Your task to perform on an android device: move an email to a new category in the gmail app Image 0: 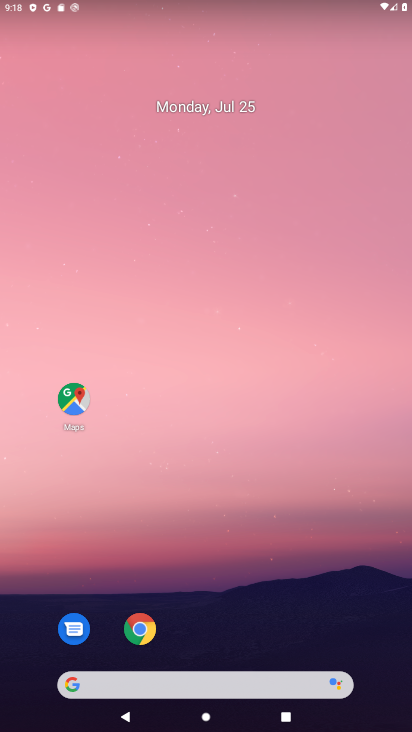
Step 0: drag from (222, 625) to (255, 0)
Your task to perform on an android device: move an email to a new category in the gmail app Image 1: 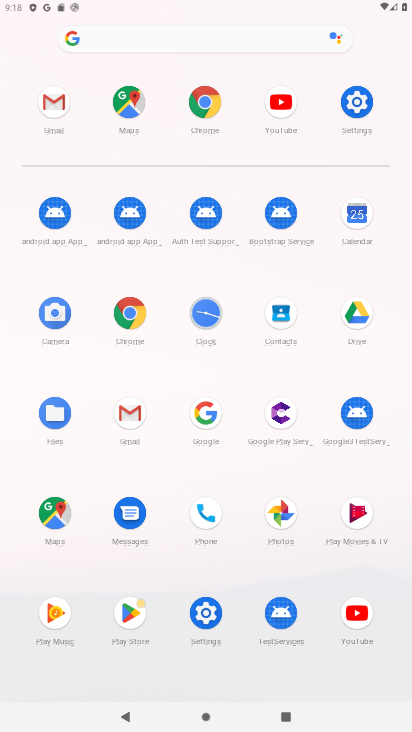
Step 1: click (59, 111)
Your task to perform on an android device: move an email to a new category in the gmail app Image 2: 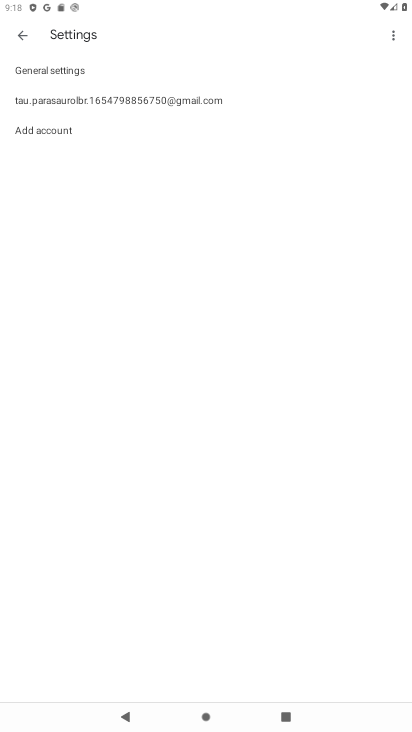
Step 2: click (27, 39)
Your task to perform on an android device: move an email to a new category in the gmail app Image 3: 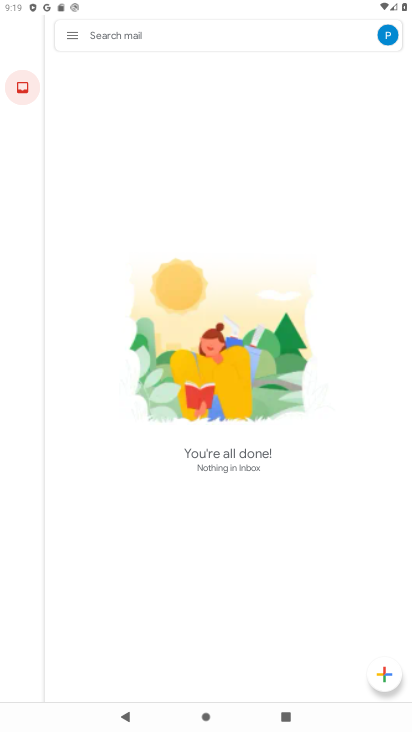
Step 3: click (66, 34)
Your task to perform on an android device: move an email to a new category in the gmail app Image 4: 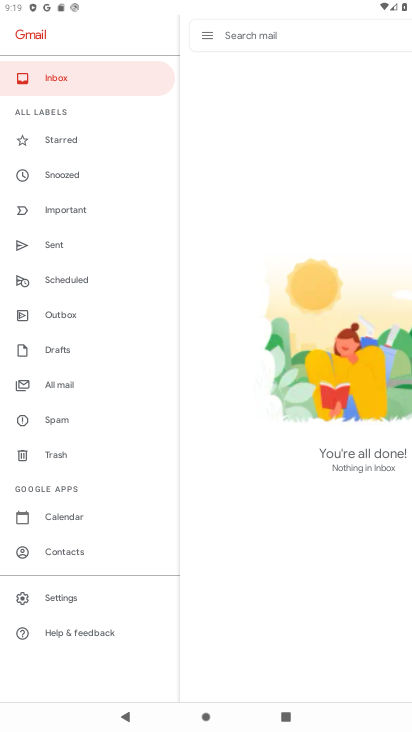
Step 4: click (89, 390)
Your task to perform on an android device: move an email to a new category in the gmail app Image 5: 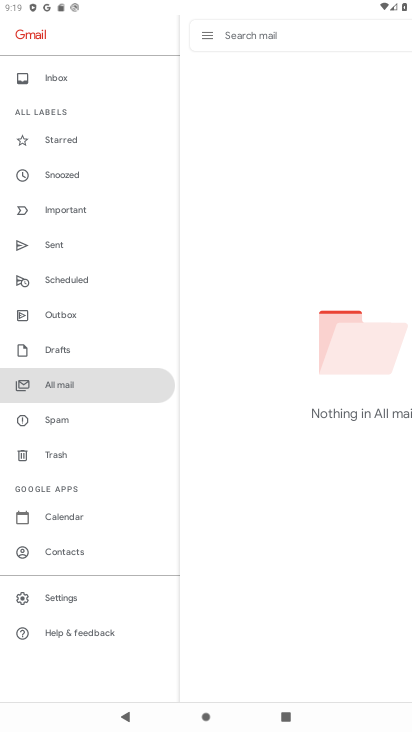
Step 5: task complete